Your task to perform on an android device: move a message to another label in the gmail app Image 0: 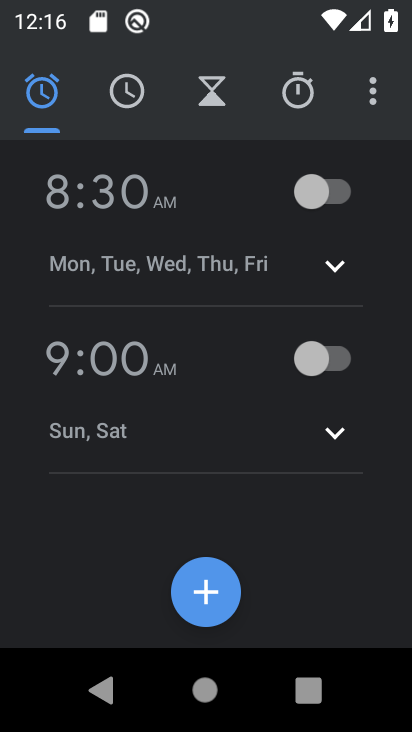
Step 0: press home button
Your task to perform on an android device: move a message to another label in the gmail app Image 1: 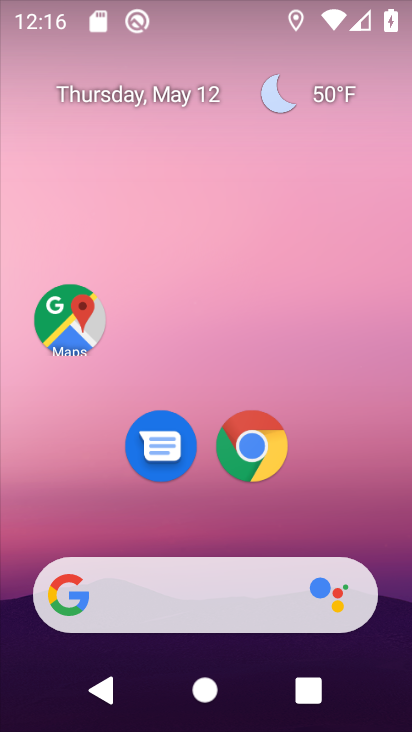
Step 1: drag from (325, 500) to (317, 1)
Your task to perform on an android device: move a message to another label in the gmail app Image 2: 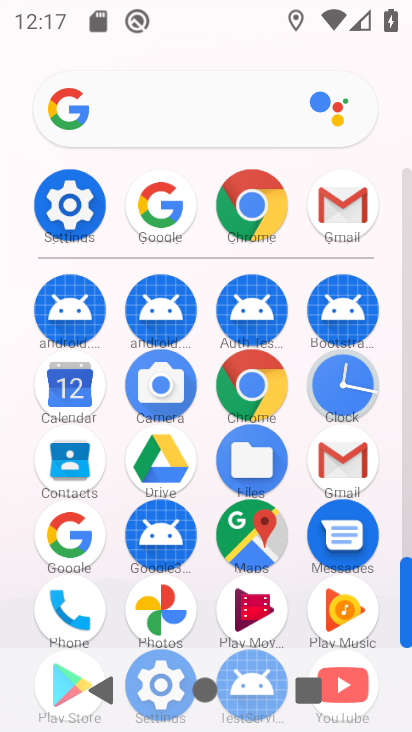
Step 2: click (337, 202)
Your task to perform on an android device: move a message to another label in the gmail app Image 3: 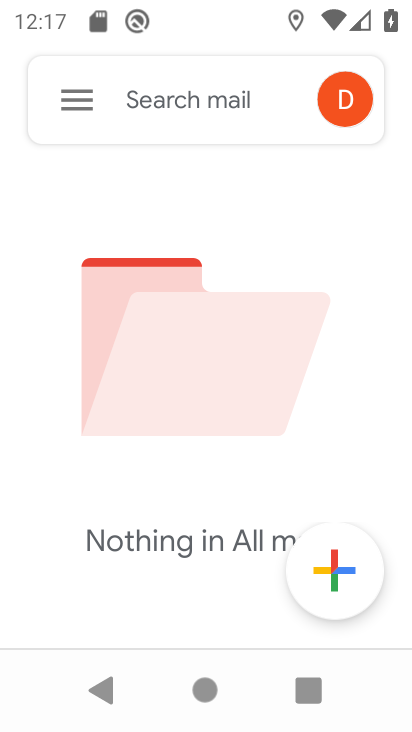
Step 3: click (76, 105)
Your task to perform on an android device: move a message to another label in the gmail app Image 4: 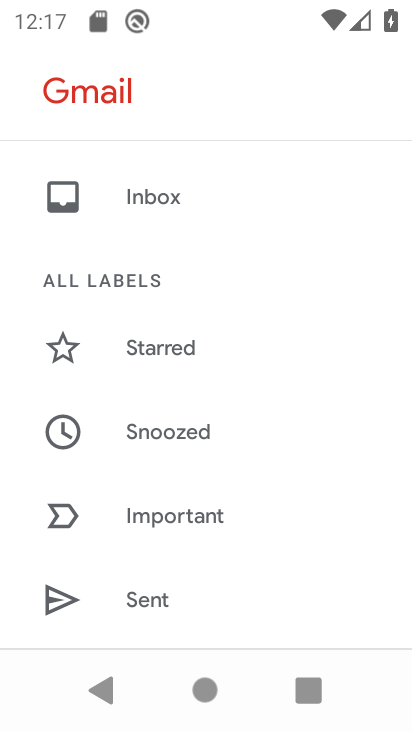
Step 4: drag from (144, 527) to (163, 227)
Your task to perform on an android device: move a message to another label in the gmail app Image 5: 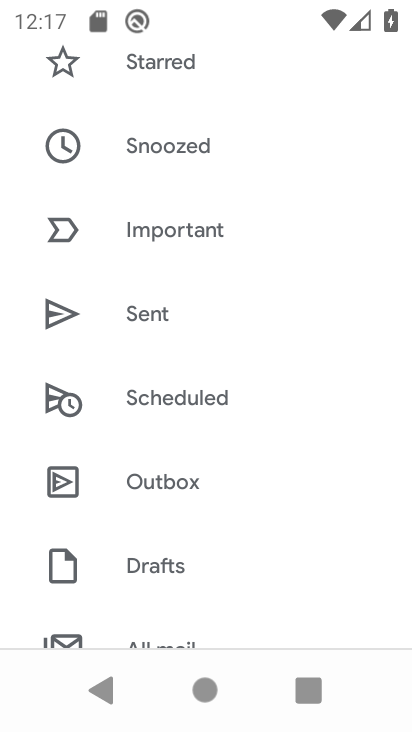
Step 5: drag from (155, 212) to (249, 155)
Your task to perform on an android device: move a message to another label in the gmail app Image 6: 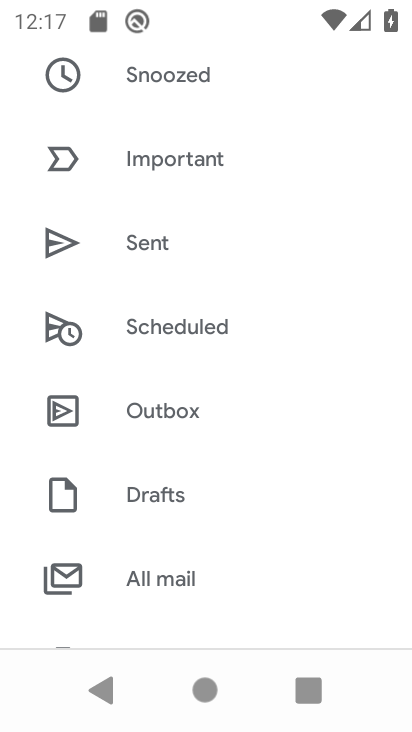
Step 6: click (159, 566)
Your task to perform on an android device: move a message to another label in the gmail app Image 7: 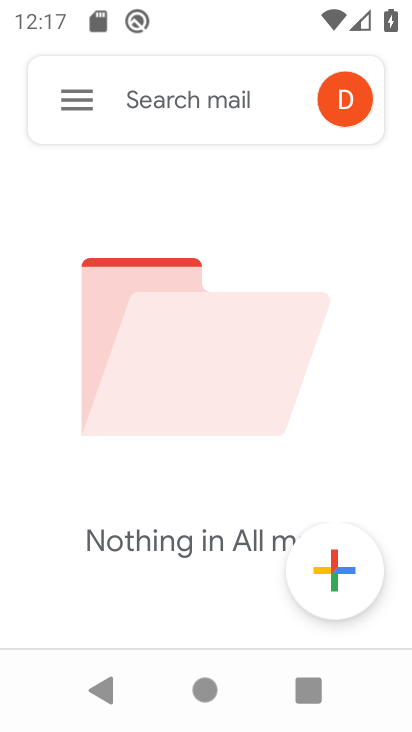
Step 7: task complete